Your task to perform on an android device: Open Google Chrome Image 0: 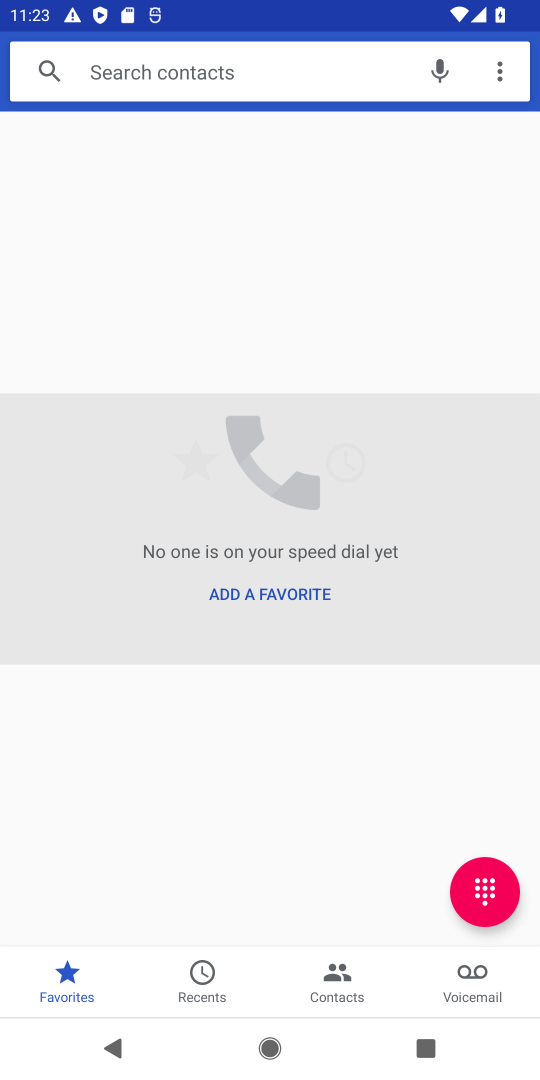
Step 0: press home button
Your task to perform on an android device: Open Google Chrome Image 1: 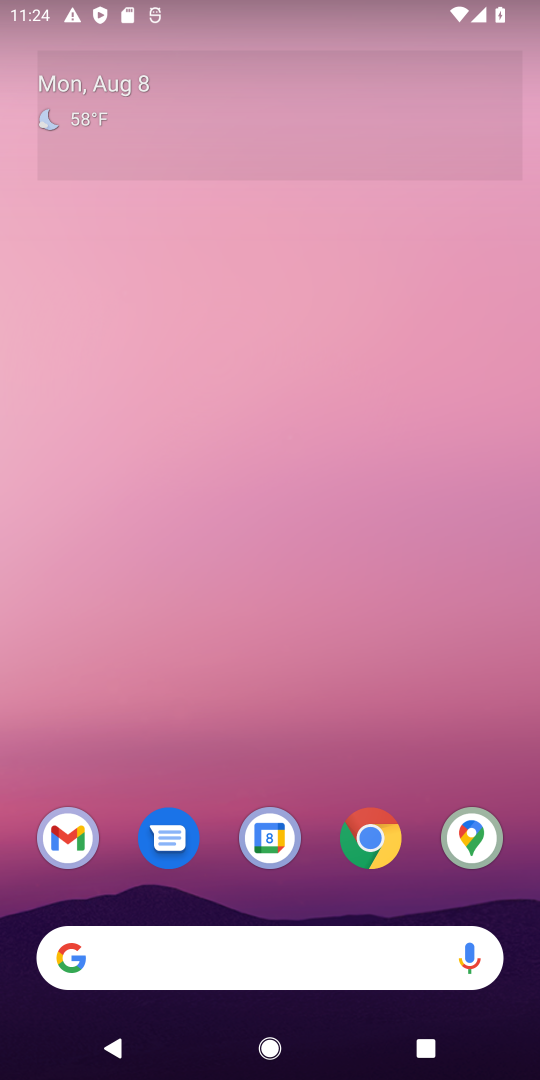
Step 1: click (380, 836)
Your task to perform on an android device: Open Google Chrome Image 2: 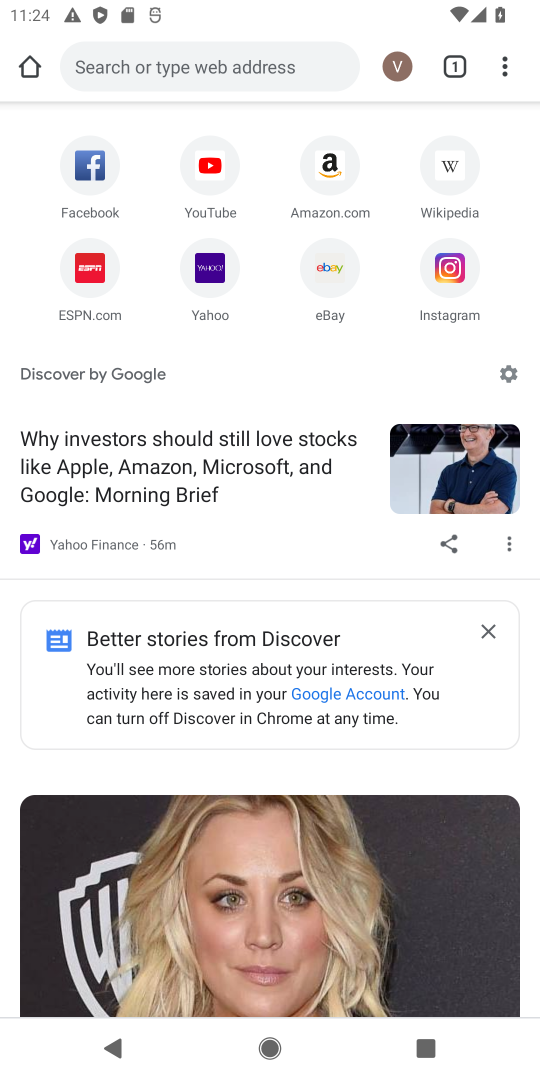
Step 2: task complete